Your task to perform on an android device: Add logitech g910 to the cart on costco.com, then select checkout. Image 0: 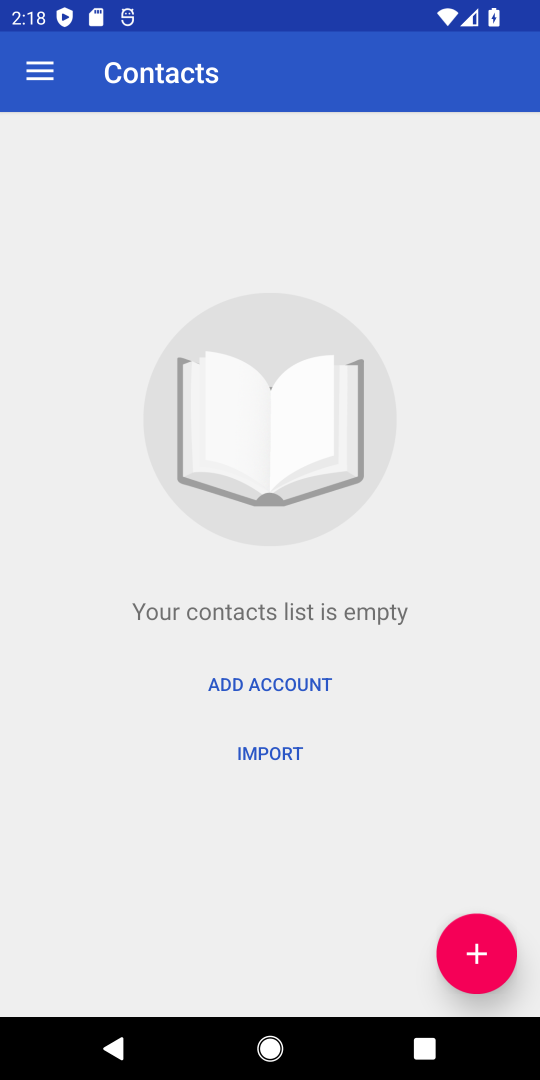
Step 0: press home button
Your task to perform on an android device: Add logitech g910 to the cart on costco.com, then select checkout. Image 1: 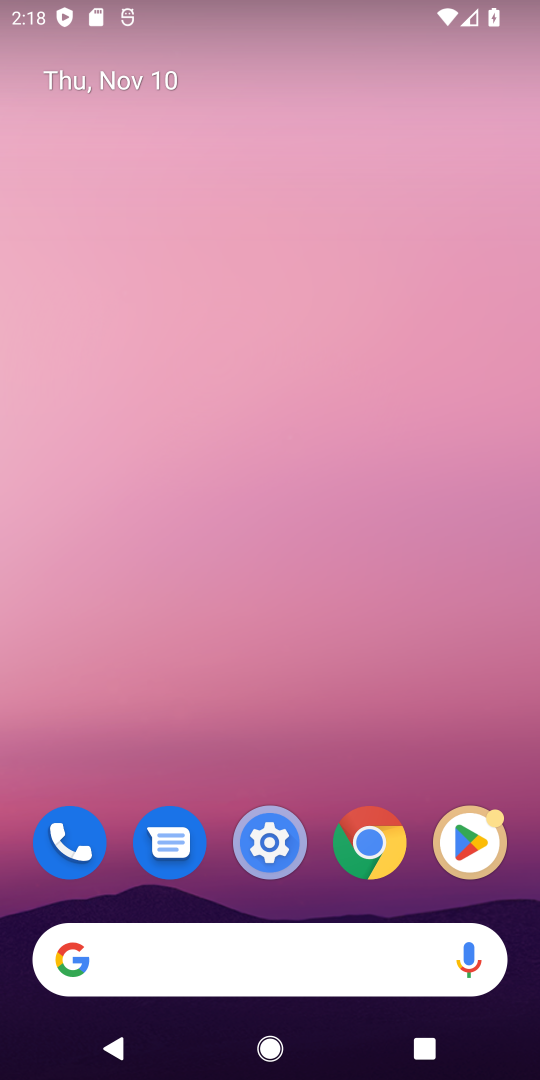
Step 1: click (108, 963)
Your task to perform on an android device: Add logitech g910 to the cart on costco.com, then select checkout. Image 2: 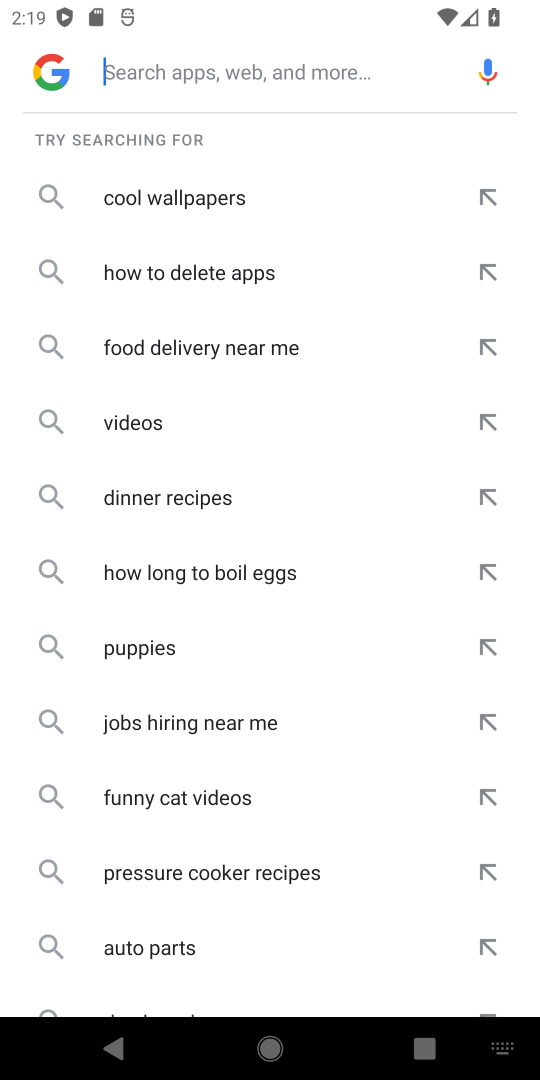
Step 2: type "costco.com"
Your task to perform on an android device: Add logitech g910 to the cart on costco.com, then select checkout. Image 3: 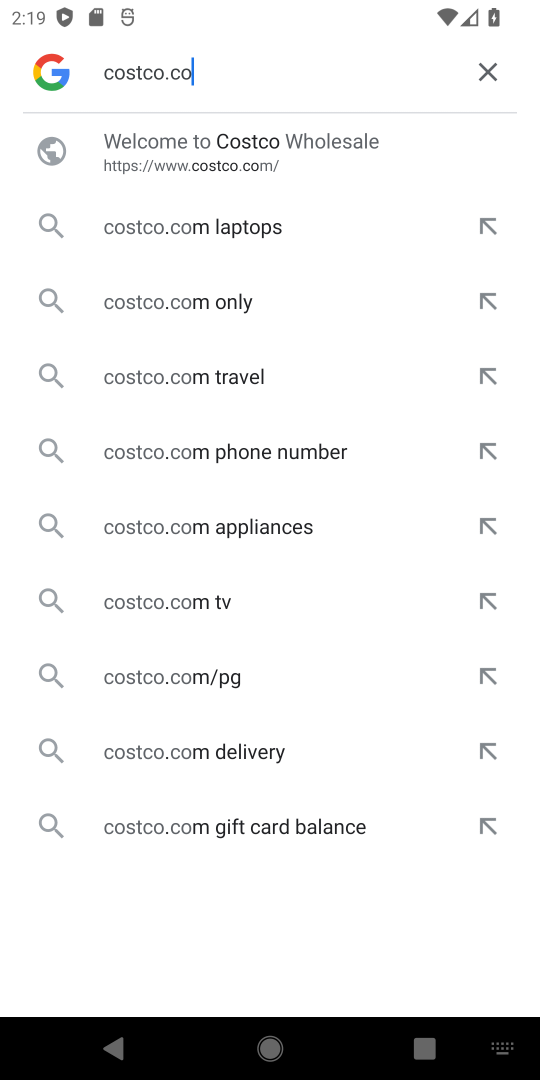
Step 3: press enter
Your task to perform on an android device: Add logitech g910 to the cart on costco.com, then select checkout. Image 4: 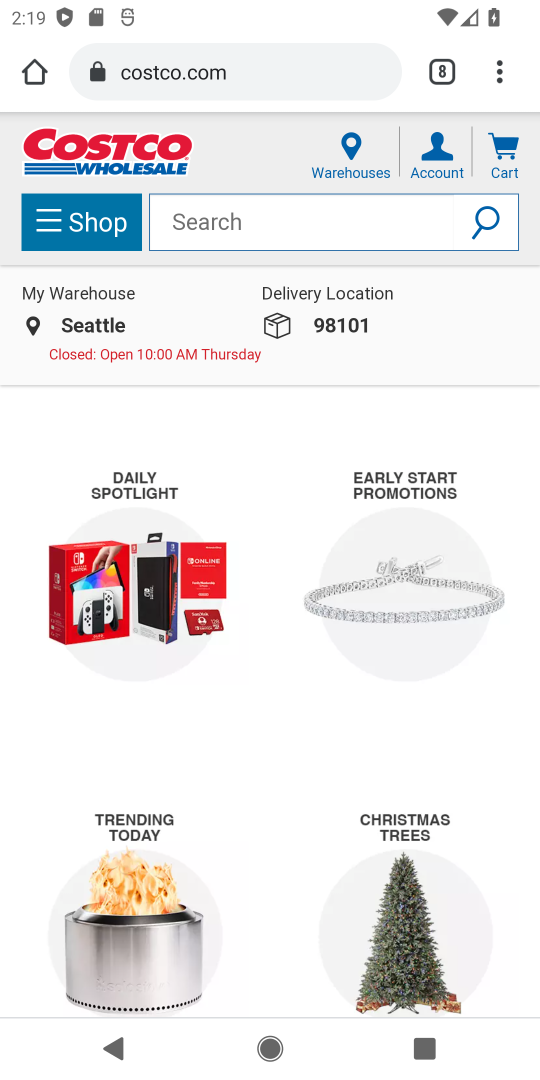
Step 4: click (212, 217)
Your task to perform on an android device: Add logitech g910 to the cart on costco.com, then select checkout. Image 5: 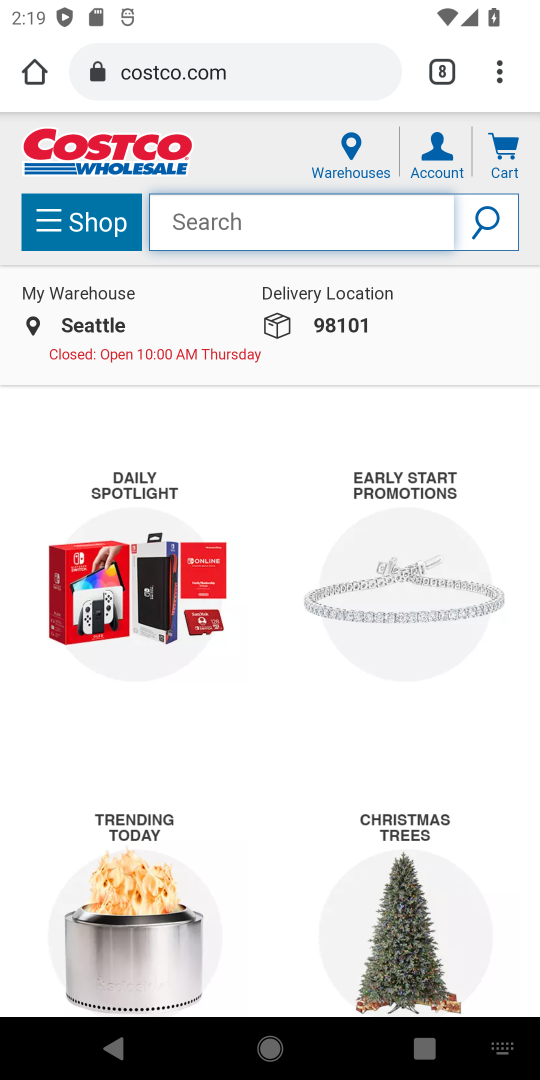
Step 5: type " logitech g910 "
Your task to perform on an android device: Add logitech g910 to the cart on costco.com, then select checkout. Image 6: 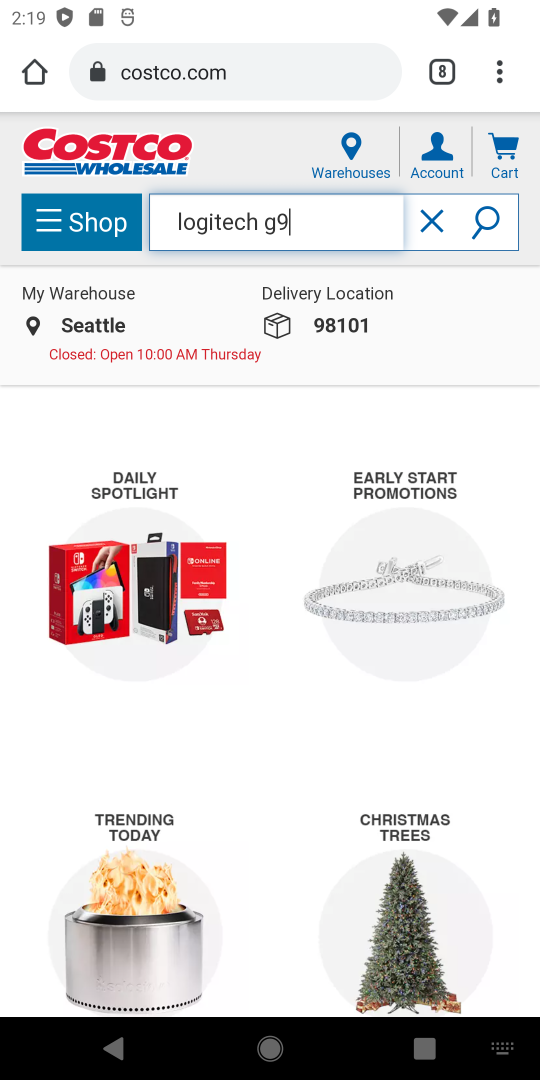
Step 6: press enter
Your task to perform on an android device: Add logitech g910 to the cart on costco.com, then select checkout. Image 7: 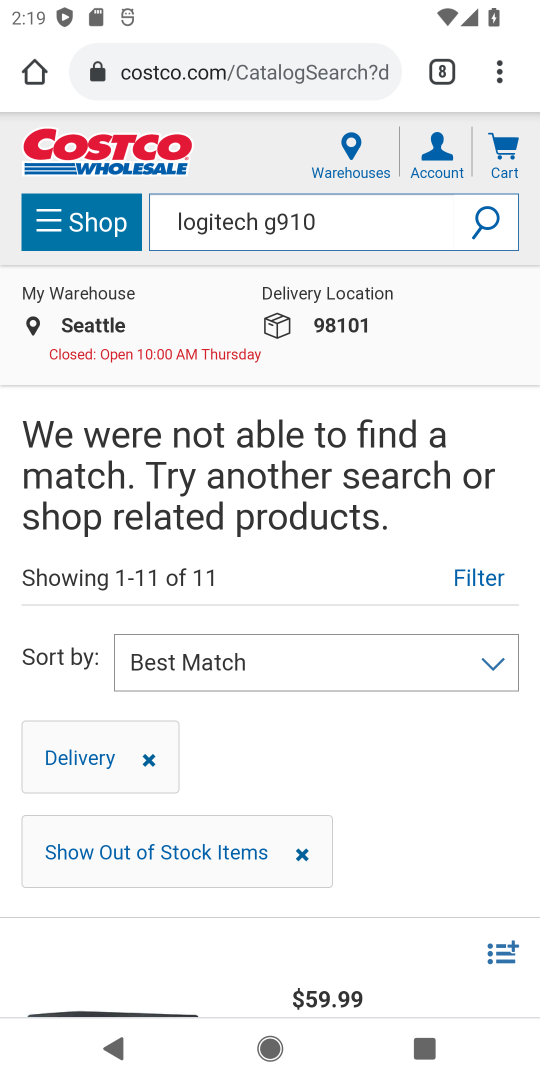
Step 7: task complete